Your task to perform on an android device: Open Google Chrome and click the shortcut for Amazon.com Image 0: 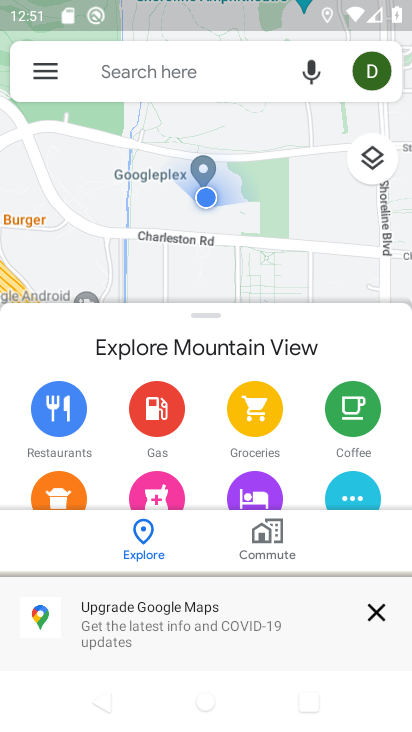
Step 0: press home button
Your task to perform on an android device: Open Google Chrome and click the shortcut for Amazon.com Image 1: 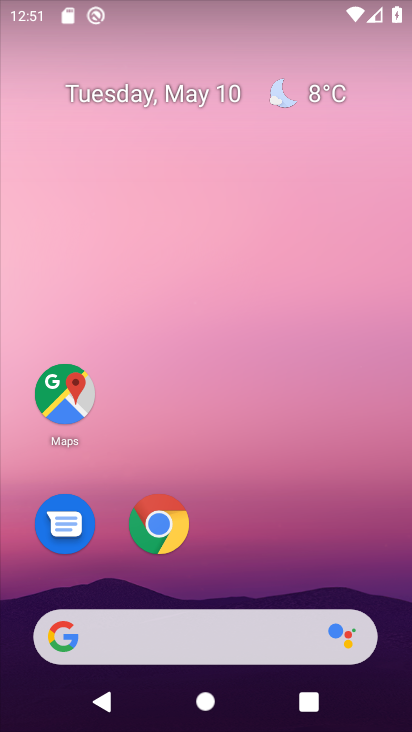
Step 1: click (162, 523)
Your task to perform on an android device: Open Google Chrome and click the shortcut for Amazon.com Image 2: 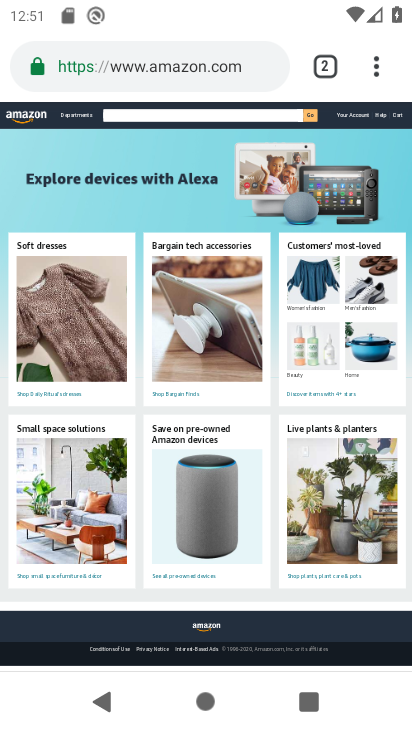
Step 2: click (379, 60)
Your task to perform on an android device: Open Google Chrome and click the shortcut for Amazon.com Image 3: 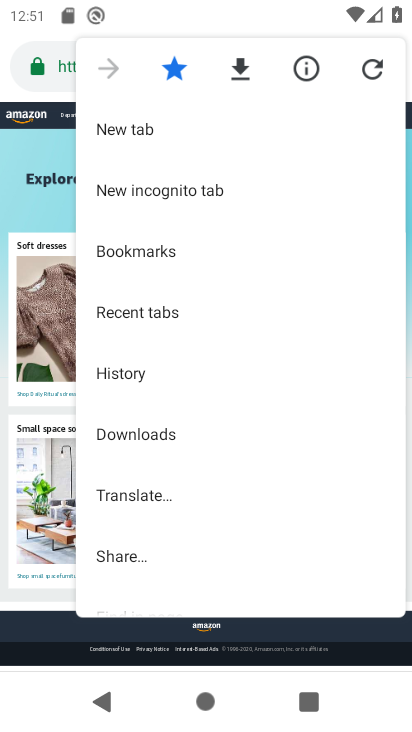
Step 3: click (260, 128)
Your task to perform on an android device: Open Google Chrome and click the shortcut for Amazon.com Image 4: 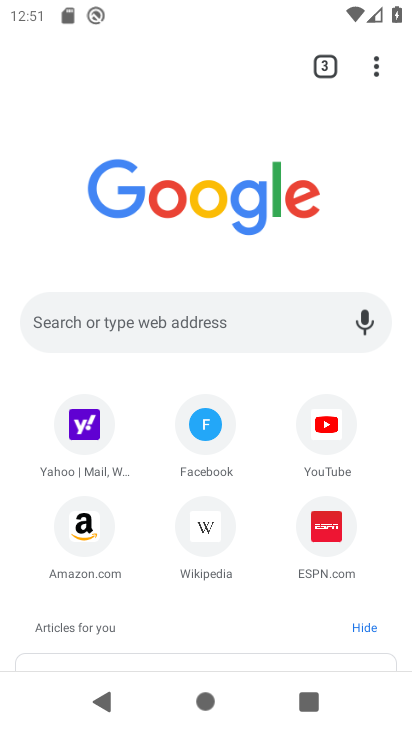
Step 4: click (87, 517)
Your task to perform on an android device: Open Google Chrome and click the shortcut for Amazon.com Image 5: 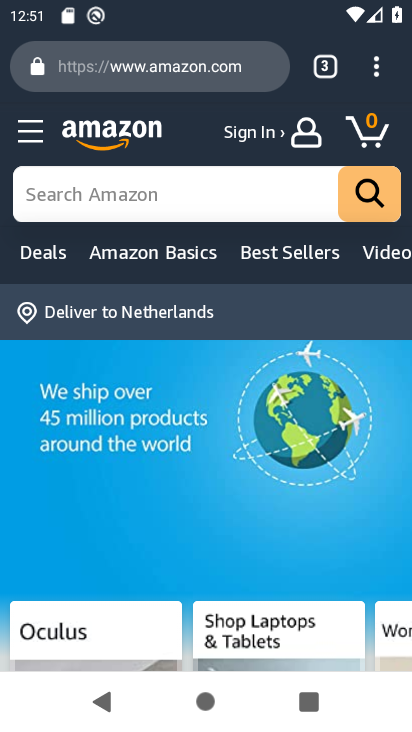
Step 5: task complete